Your task to perform on an android device: Open Youtube and go to the subscriptions tab Image 0: 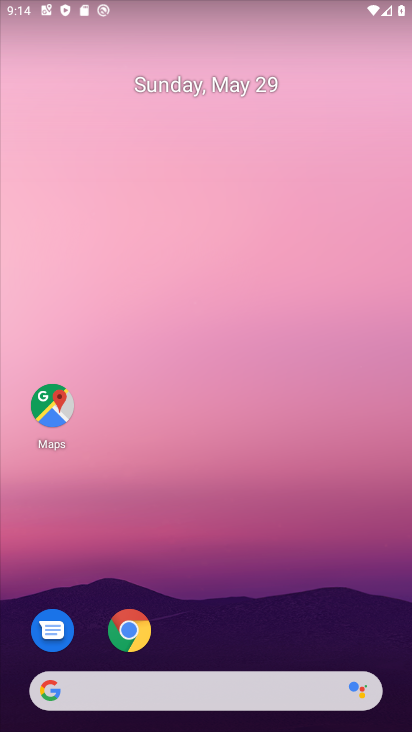
Step 0: drag from (321, 617) to (357, 208)
Your task to perform on an android device: Open Youtube and go to the subscriptions tab Image 1: 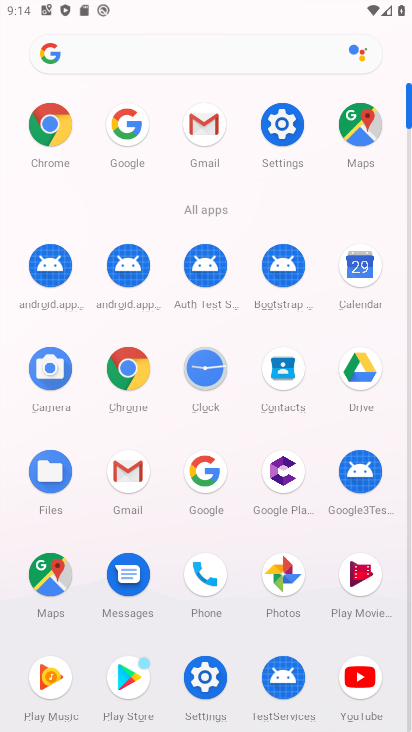
Step 1: click (368, 686)
Your task to perform on an android device: Open Youtube and go to the subscriptions tab Image 2: 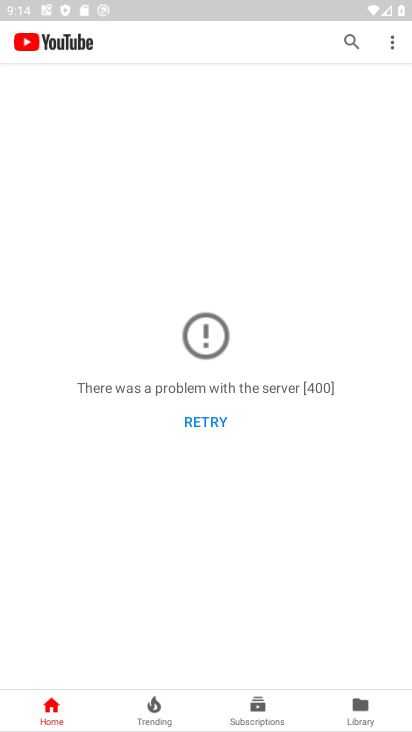
Step 2: click (266, 698)
Your task to perform on an android device: Open Youtube and go to the subscriptions tab Image 3: 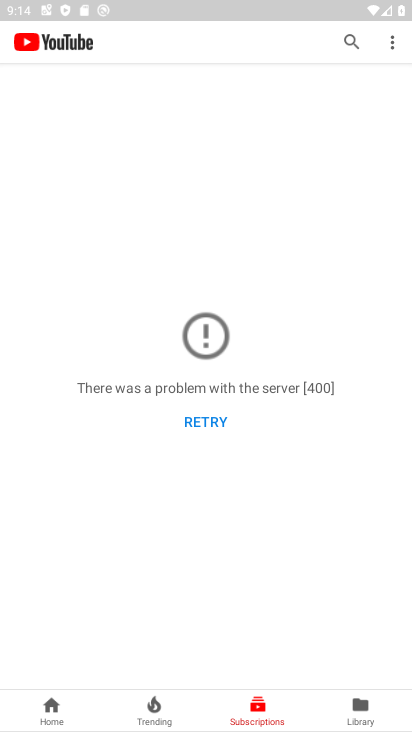
Step 3: task complete